Your task to perform on an android device: Search for sushi restaurants on Maps Image 0: 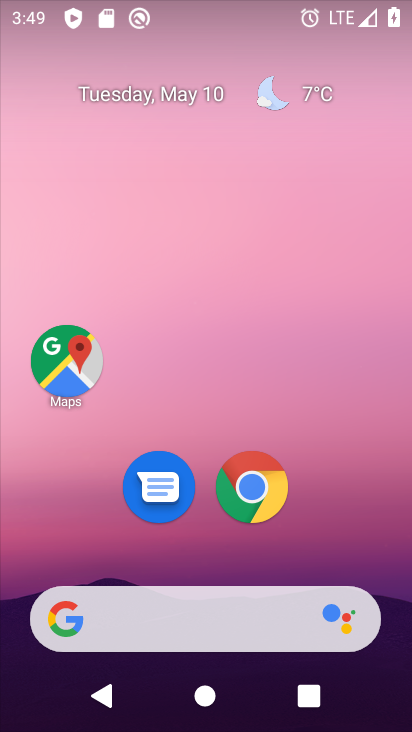
Step 0: click (64, 351)
Your task to perform on an android device: Search for sushi restaurants on Maps Image 1: 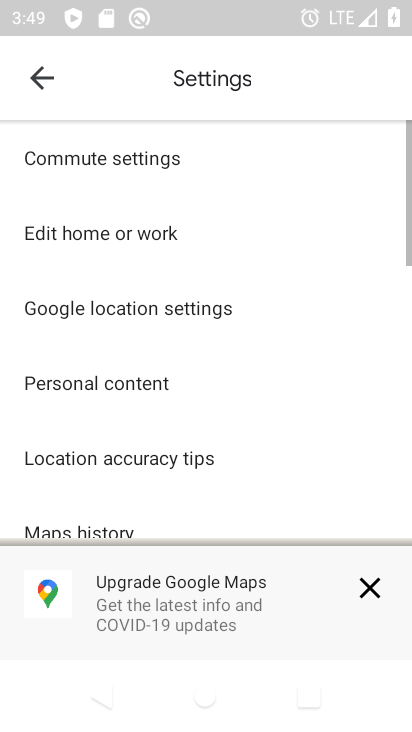
Step 1: click (51, 83)
Your task to perform on an android device: Search for sushi restaurants on Maps Image 2: 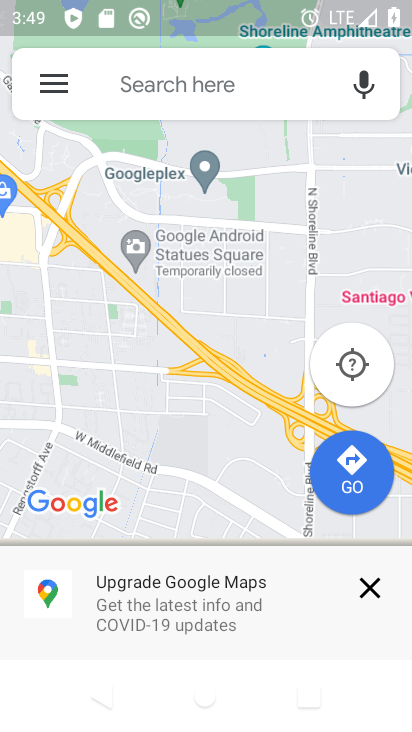
Step 2: click (192, 99)
Your task to perform on an android device: Search for sushi restaurants on Maps Image 3: 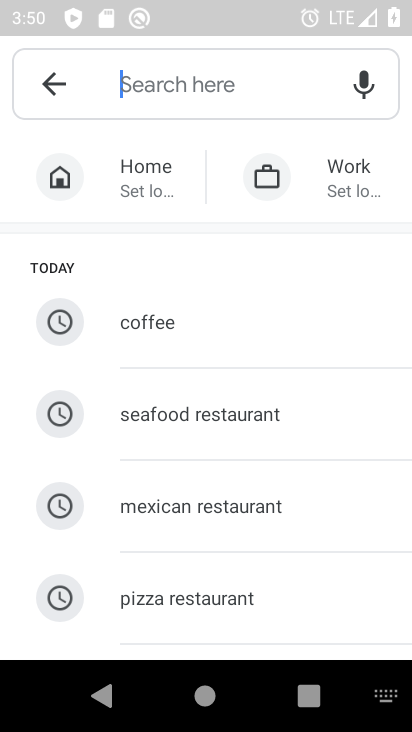
Step 3: type "sushi restaurants"
Your task to perform on an android device: Search for sushi restaurants on Maps Image 4: 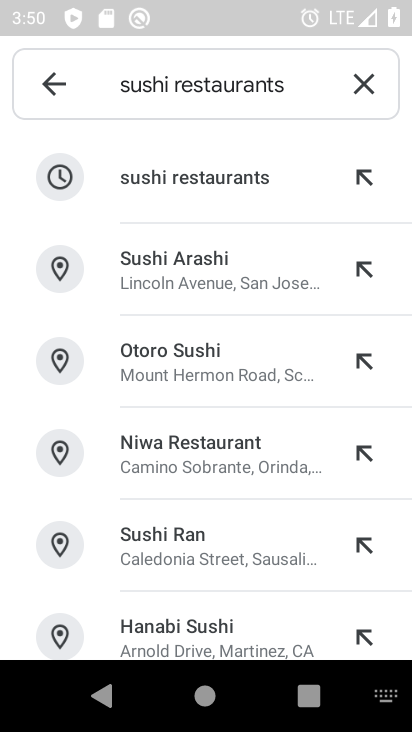
Step 4: click (161, 183)
Your task to perform on an android device: Search for sushi restaurants on Maps Image 5: 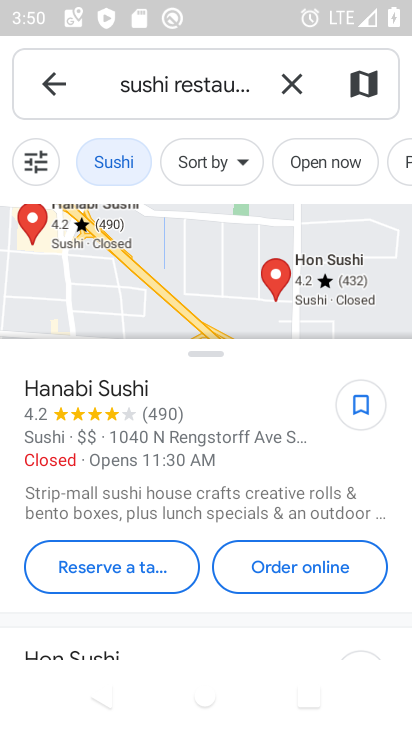
Step 5: task complete